Your task to perform on an android device: Open the phone app and click the voicemail tab. Image 0: 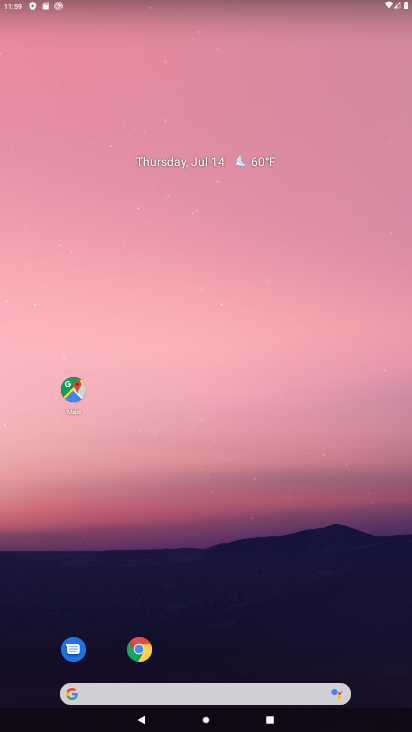
Step 0: drag from (217, 618) to (236, 167)
Your task to perform on an android device: Open the phone app and click the voicemail tab. Image 1: 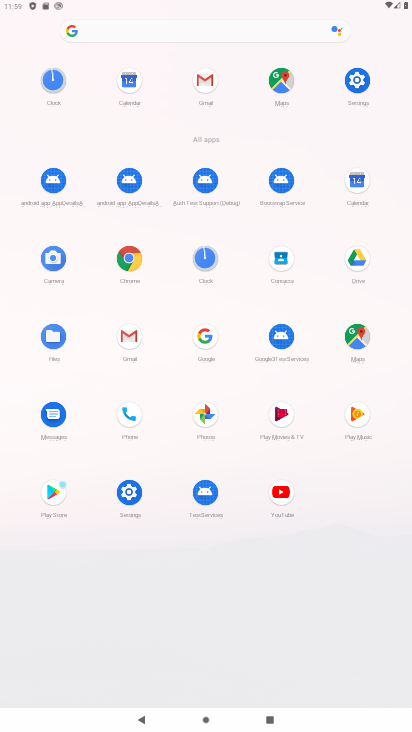
Step 1: click (136, 412)
Your task to perform on an android device: Open the phone app and click the voicemail tab. Image 2: 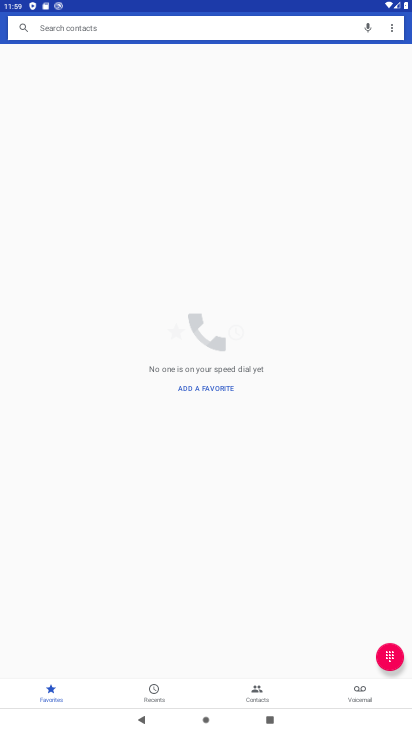
Step 2: click (360, 687)
Your task to perform on an android device: Open the phone app and click the voicemail tab. Image 3: 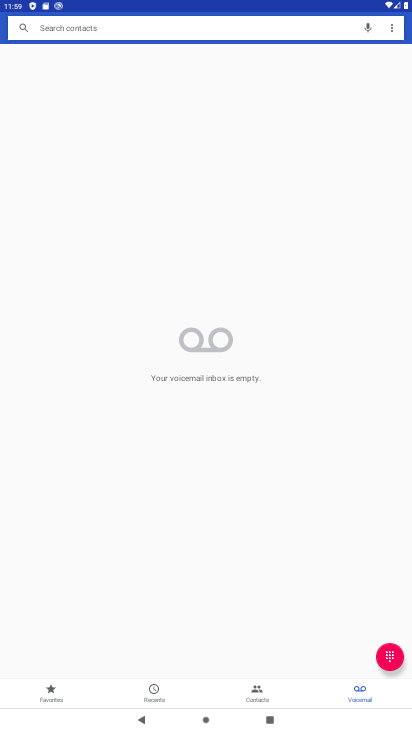
Step 3: task complete